Your task to perform on an android device: Open eBay Image 0: 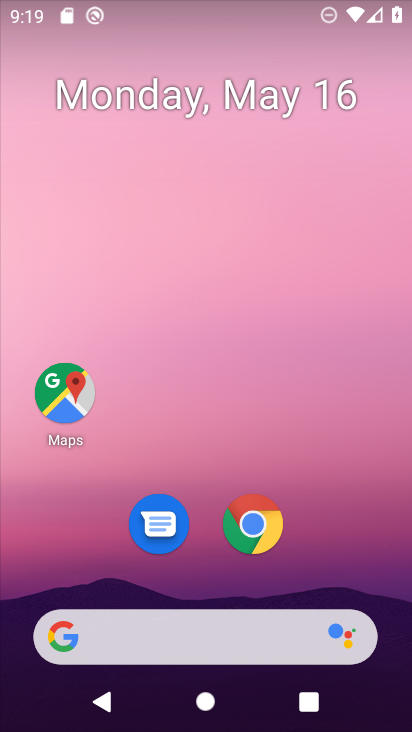
Step 0: click (267, 645)
Your task to perform on an android device: Open eBay Image 1: 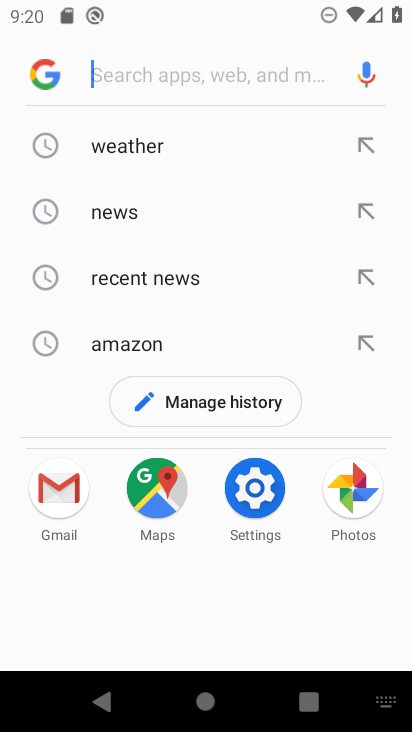
Step 1: type "ebay"
Your task to perform on an android device: Open eBay Image 2: 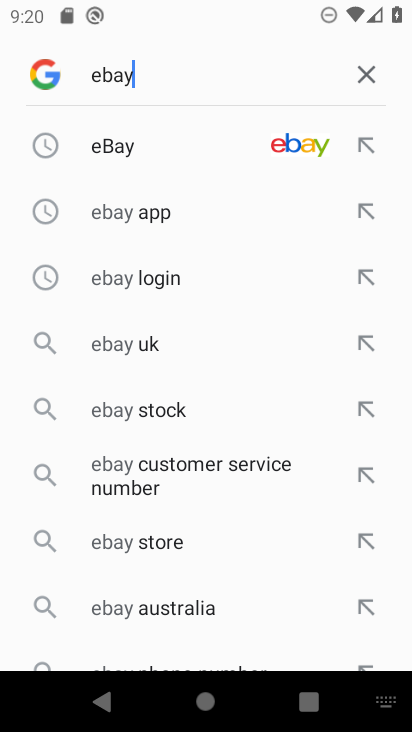
Step 2: click (109, 151)
Your task to perform on an android device: Open eBay Image 3: 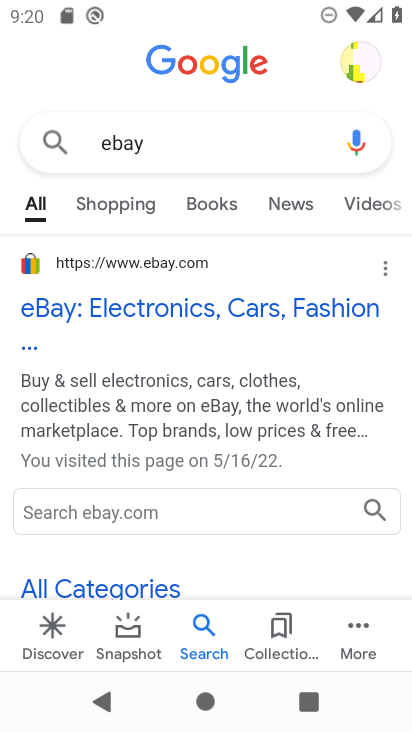
Step 3: click (63, 300)
Your task to perform on an android device: Open eBay Image 4: 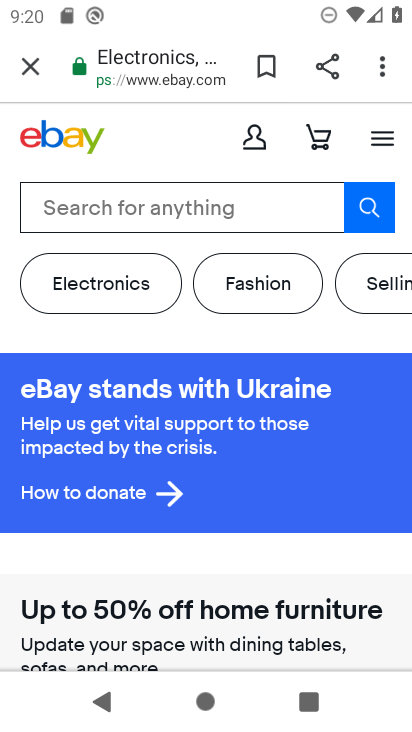
Step 4: task complete